Your task to perform on an android device: How do I get to the nearest McDonalds? Image 0: 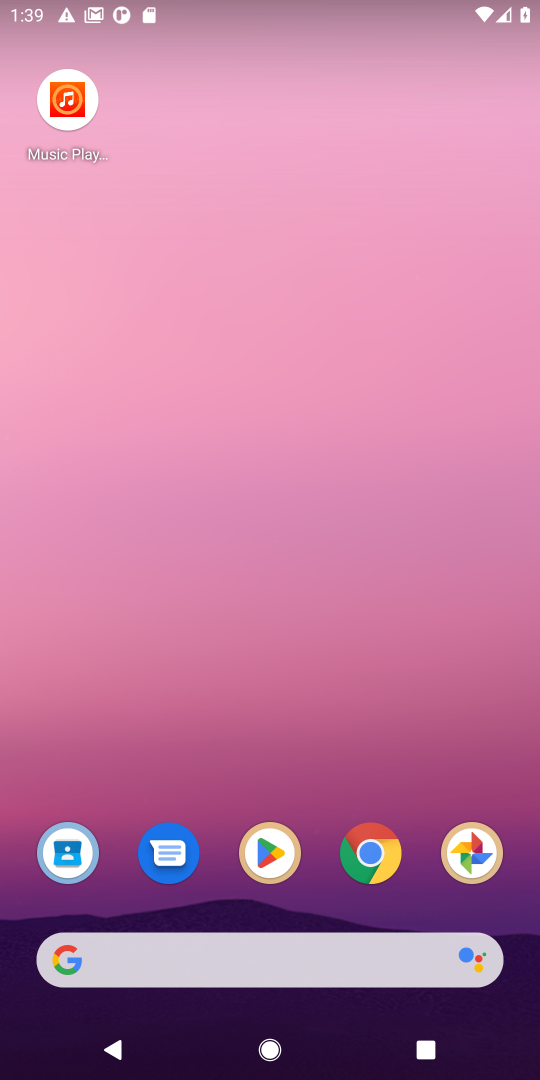
Step 0: click (387, 857)
Your task to perform on an android device: How do I get to the nearest McDonalds? Image 1: 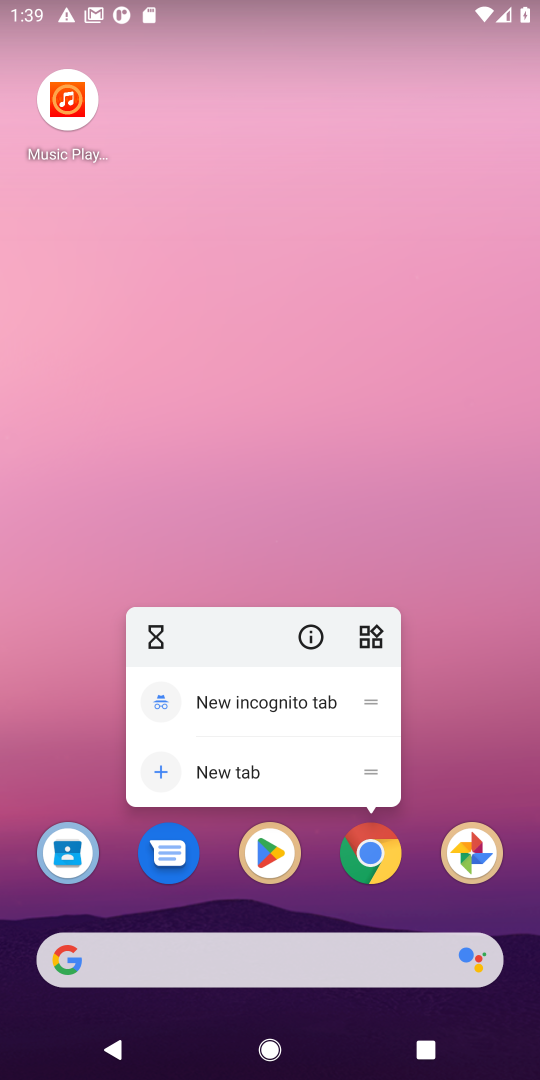
Step 1: click (363, 862)
Your task to perform on an android device: How do I get to the nearest McDonalds? Image 2: 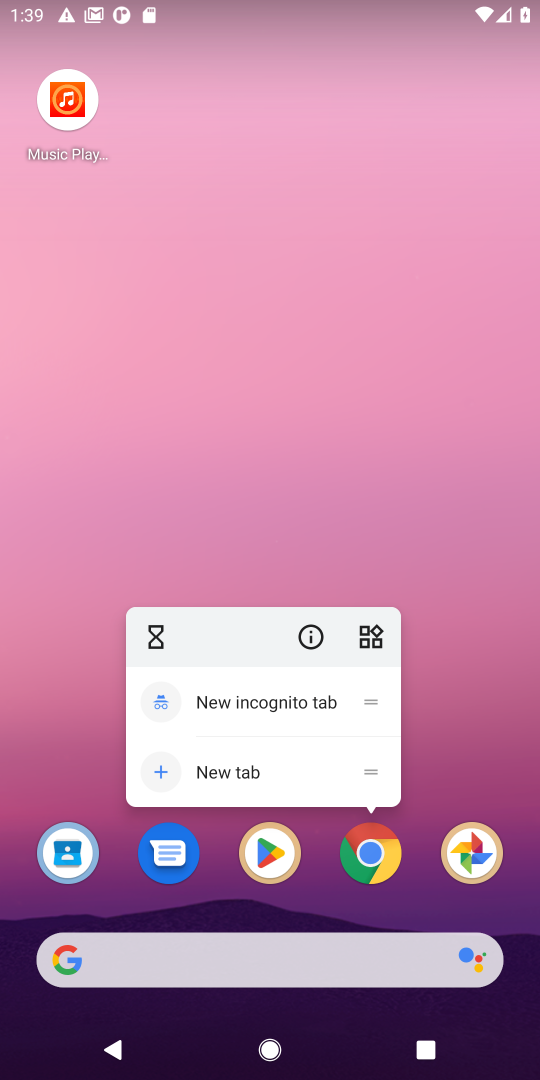
Step 2: click (385, 855)
Your task to perform on an android device: How do I get to the nearest McDonalds? Image 3: 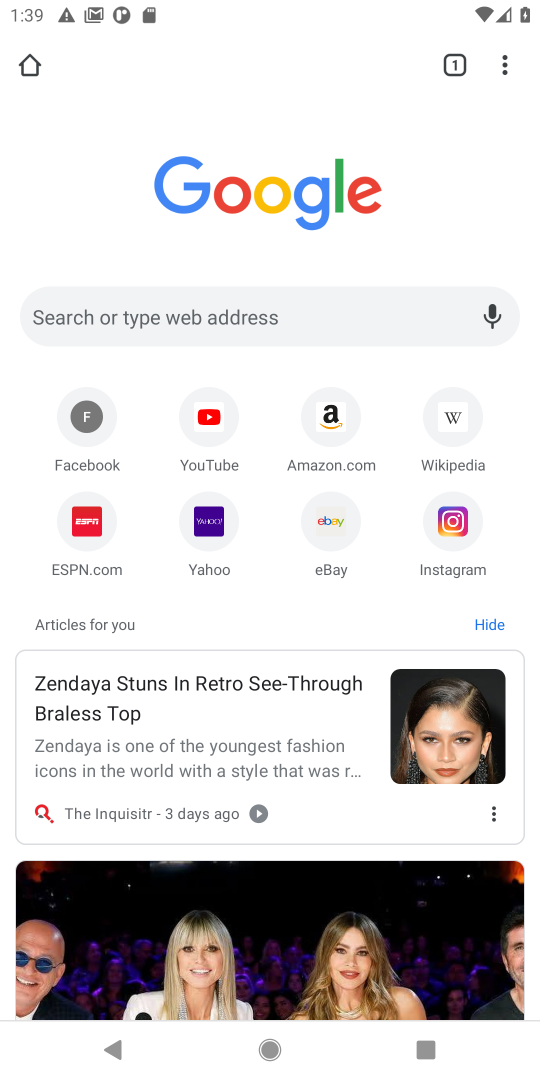
Step 3: click (270, 325)
Your task to perform on an android device: How do I get to the nearest McDonalds? Image 4: 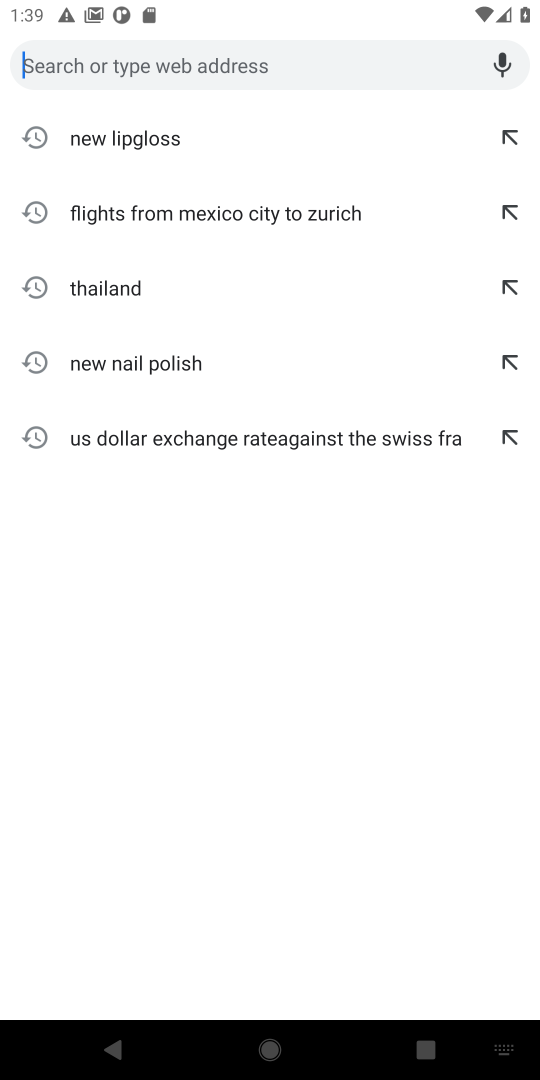
Step 4: type "nearest McDonalds"
Your task to perform on an android device: How do I get to the nearest McDonalds? Image 5: 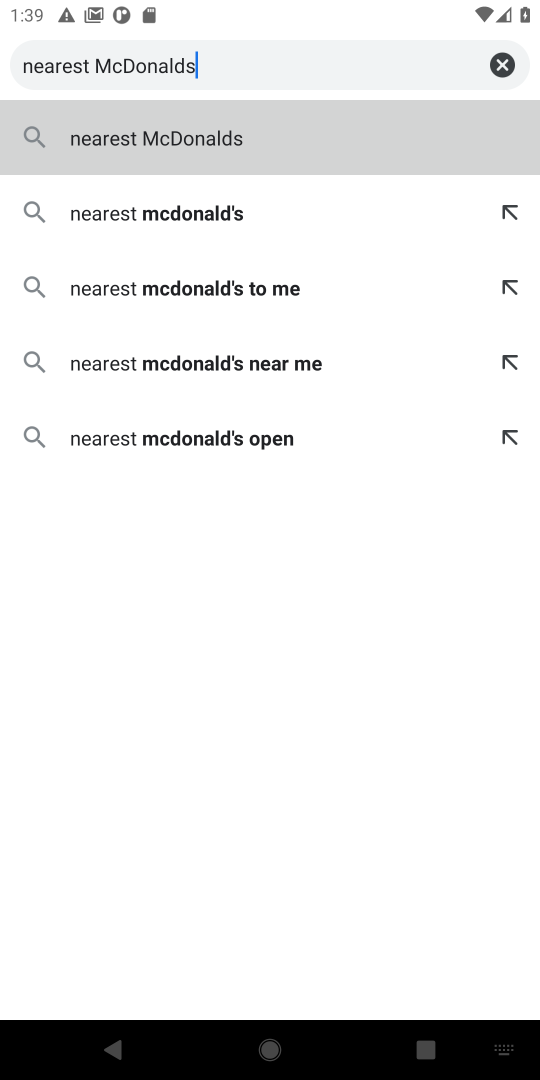
Step 5: click (185, 157)
Your task to perform on an android device: How do I get to the nearest McDonalds? Image 6: 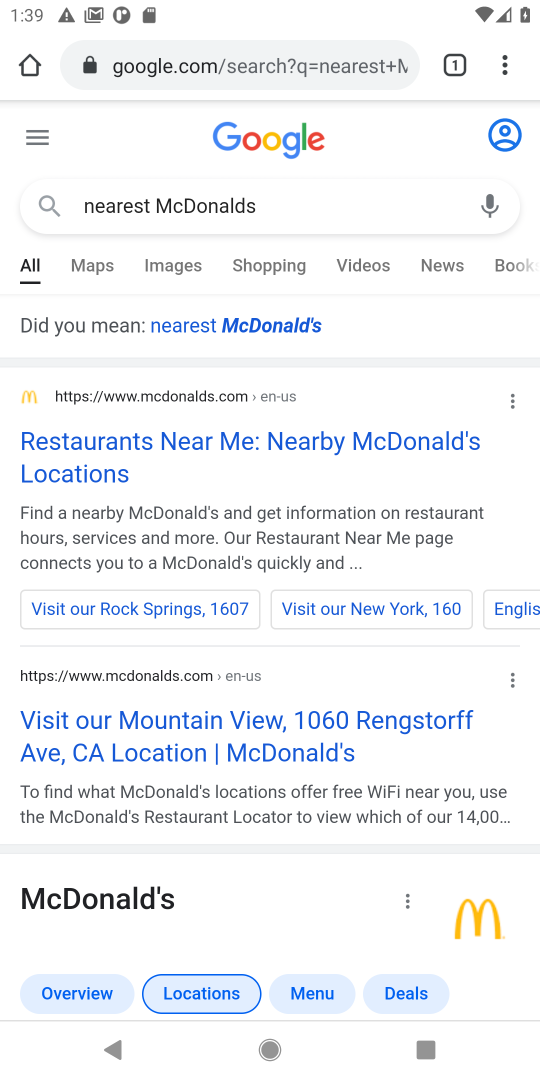
Step 6: task complete